Your task to perform on an android device: Open Yahoo.com Image 0: 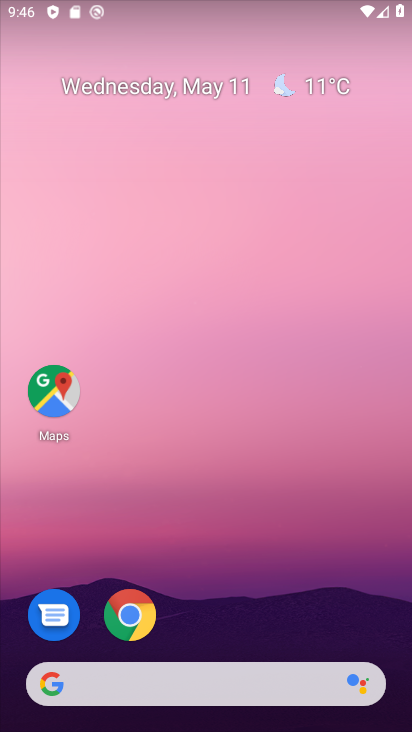
Step 0: click (123, 613)
Your task to perform on an android device: Open Yahoo.com Image 1: 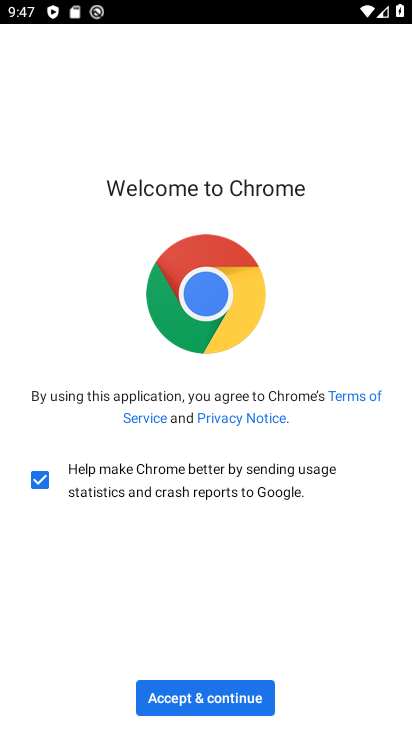
Step 1: click (203, 700)
Your task to perform on an android device: Open Yahoo.com Image 2: 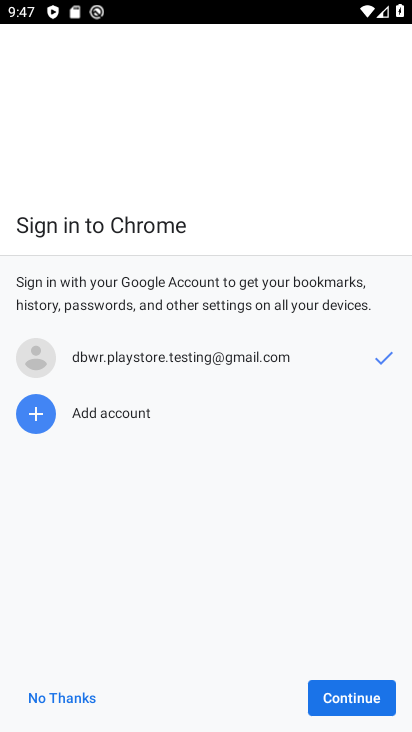
Step 2: click (340, 700)
Your task to perform on an android device: Open Yahoo.com Image 3: 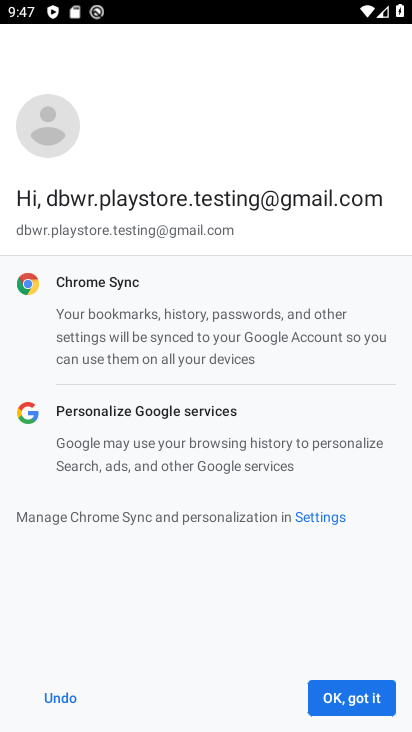
Step 3: click (369, 695)
Your task to perform on an android device: Open Yahoo.com Image 4: 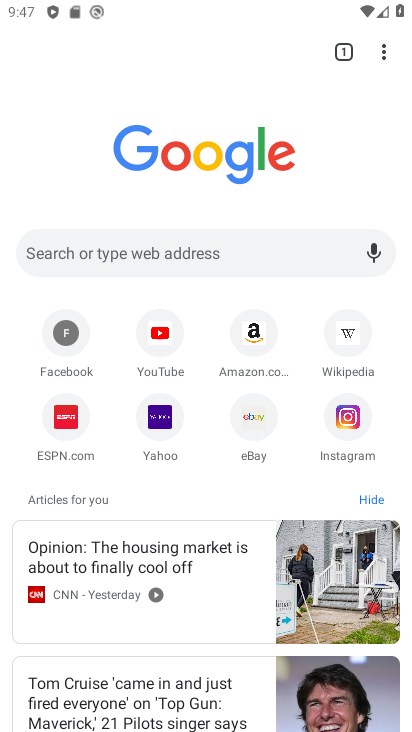
Step 4: click (158, 427)
Your task to perform on an android device: Open Yahoo.com Image 5: 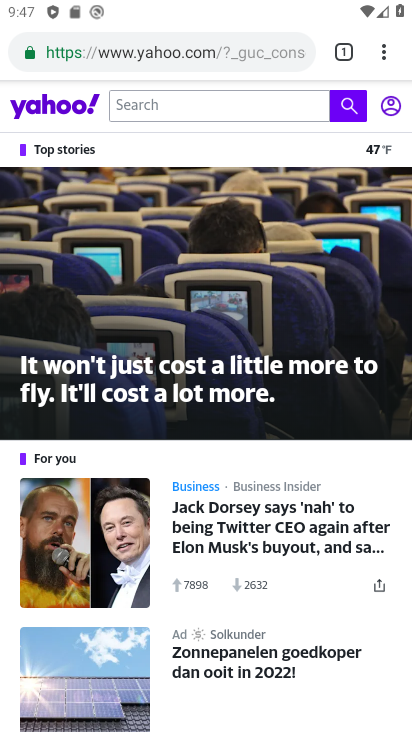
Step 5: task complete